Your task to perform on an android device: change keyboard looks Image 0: 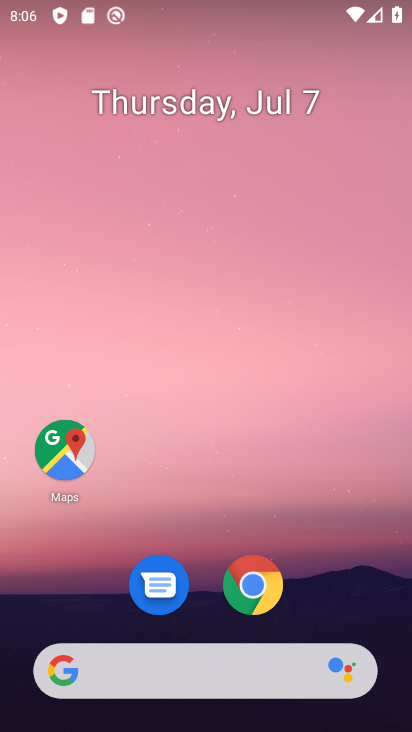
Step 0: drag from (221, 511) to (287, 10)
Your task to perform on an android device: change keyboard looks Image 1: 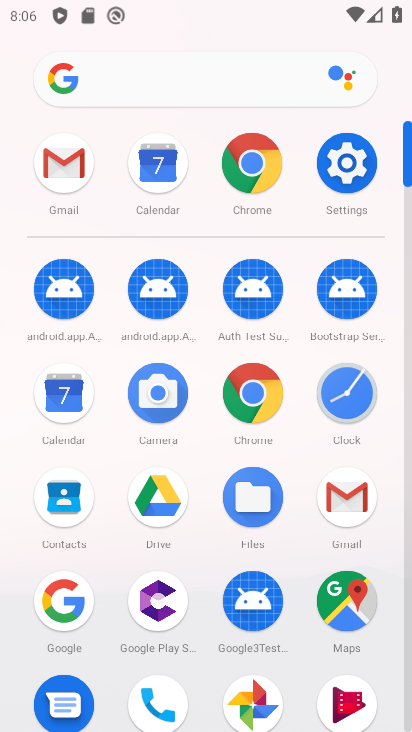
Step 1: click (334, 163)
Your task to perform on an android device: change keyboard looks Image 2: 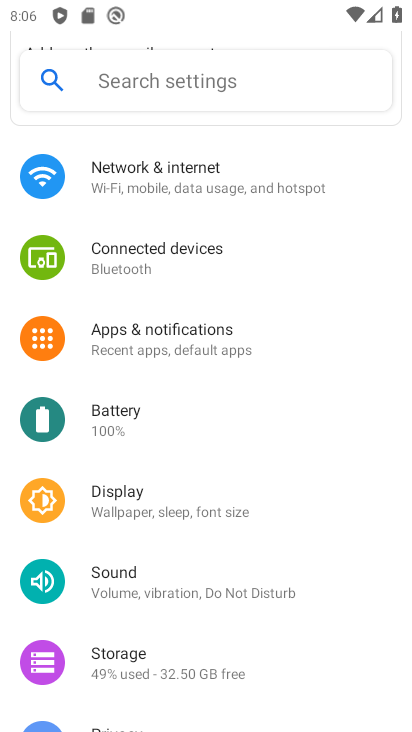
Step 2: drag from (184, 560) to (198, 163)
Your task to perform on an android device: change keyboard looks Image 3: 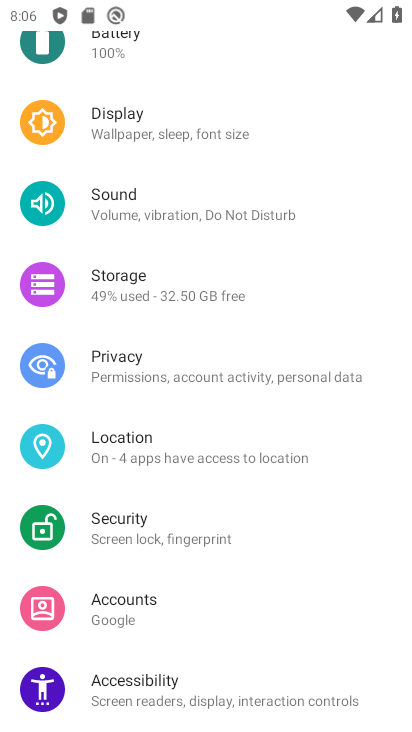
Step 3: drag from (228, 507) to (245, 138)
Your task to perform on an android device: change keyboard looks Image 4: 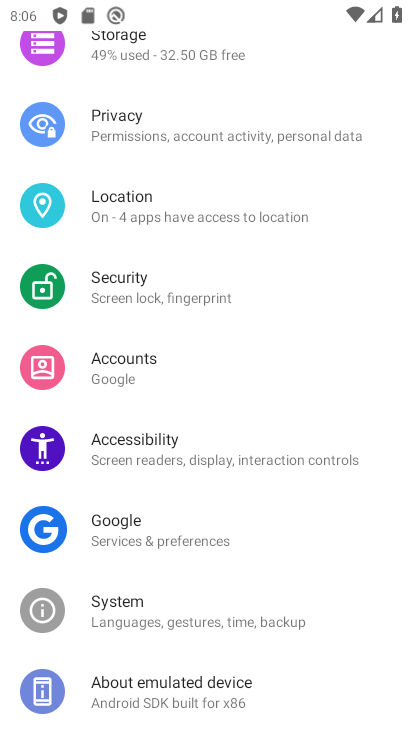
Step 4: click (208, 612)
Your task to perform on an android device: change keyboard looks Image 5: 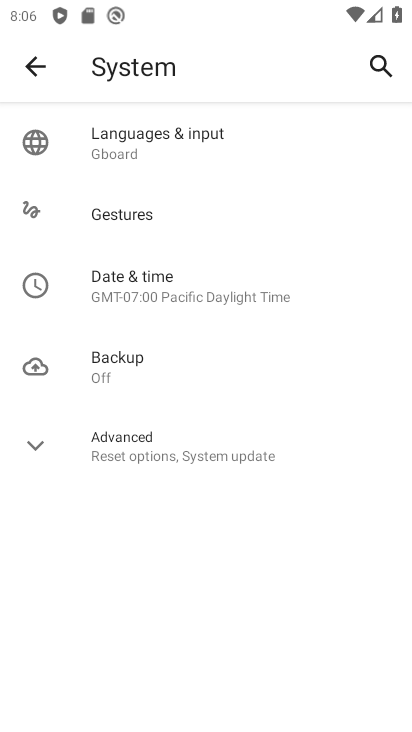
Step 5: click (171, 140)
Your task to perform on an android device: change keyboard looks Image 6: 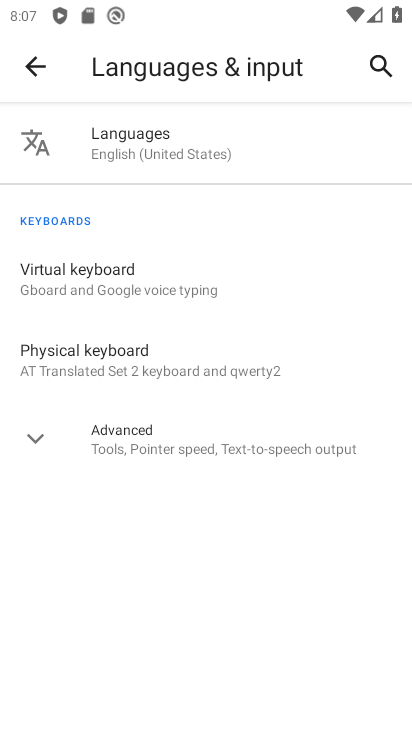
Step 6: click (163, 283)
Your task to perform on an android device: change keyboard looks Image 7: 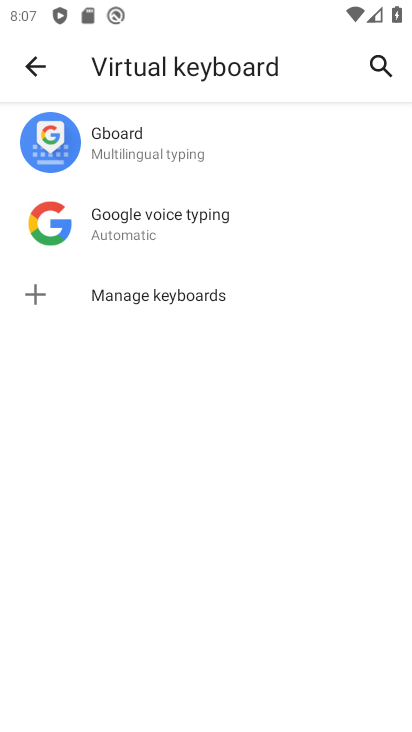
Step 7: click (143, 150)
Your task to perform on an android device: change keyboard looks Image 8: 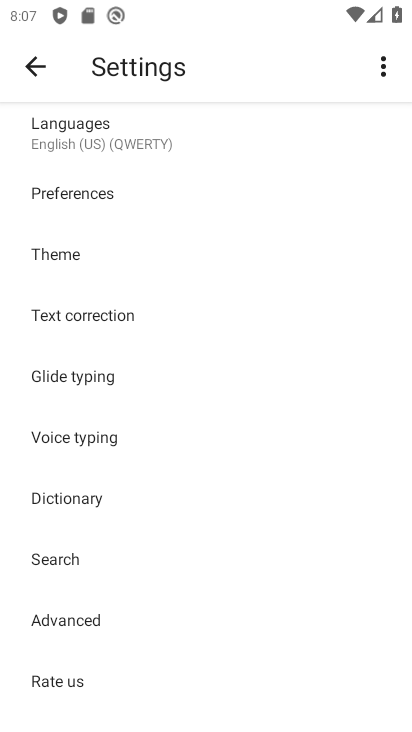
Step 8: click (36, 64)
Your task to perform on an android device: change keyboard looks Image 9: 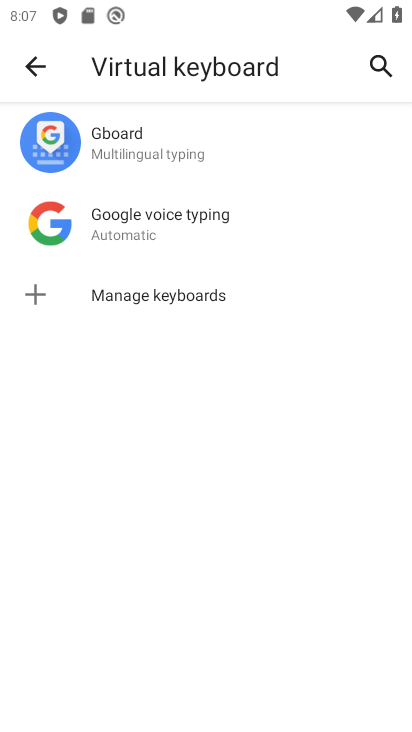
Step 9: click (87, 151)
Your task to perform on an android device: change keyboard looks Image 10: 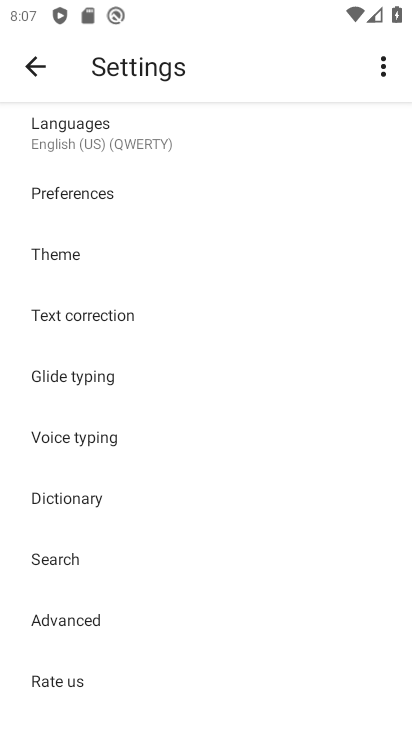
Step 10: click (68, 262)
Your task to perform on an android device: change keyboard looks Image 11: 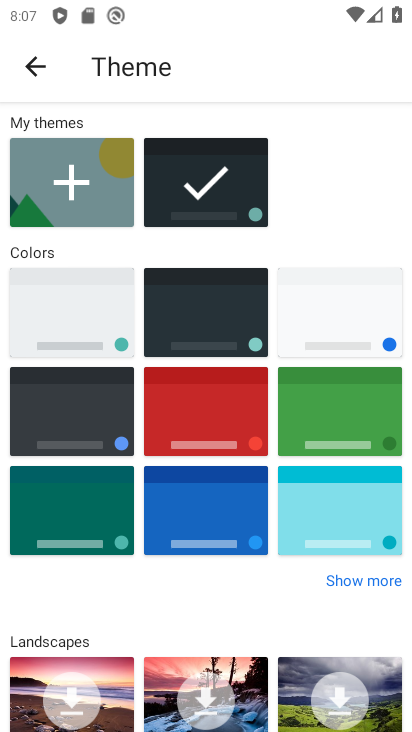
Step 11: click (200, 423)
Your task to perform on an android device: change keyboard looks Image 12: 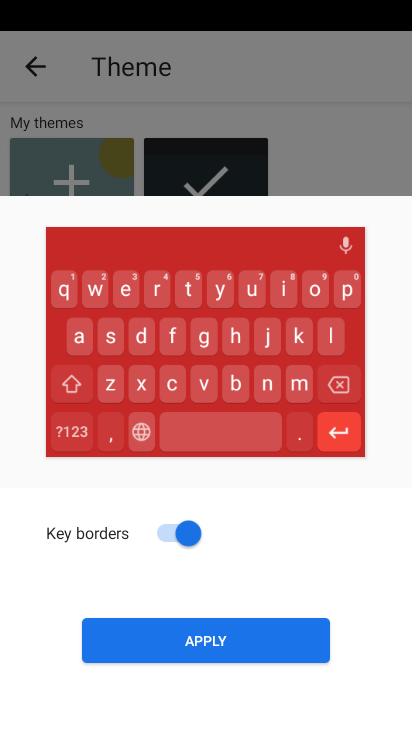
Step 12: click (241, 635)
Your task to perform on an android device: change keyboard looks Image 13: 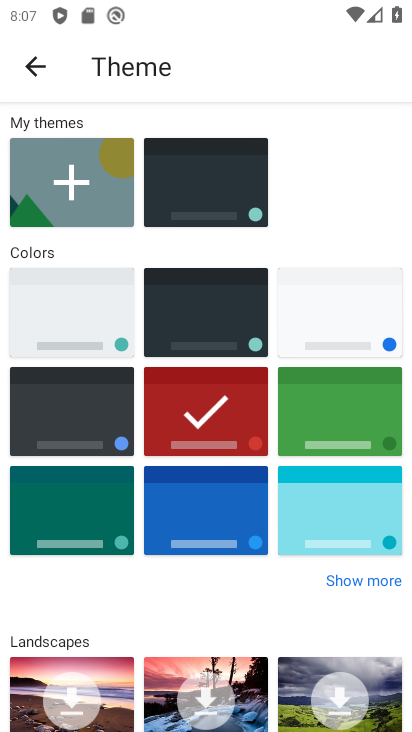
Step 13: task complete